Your task to perform on an android device: turn pop-ups off in chrome Image 0: 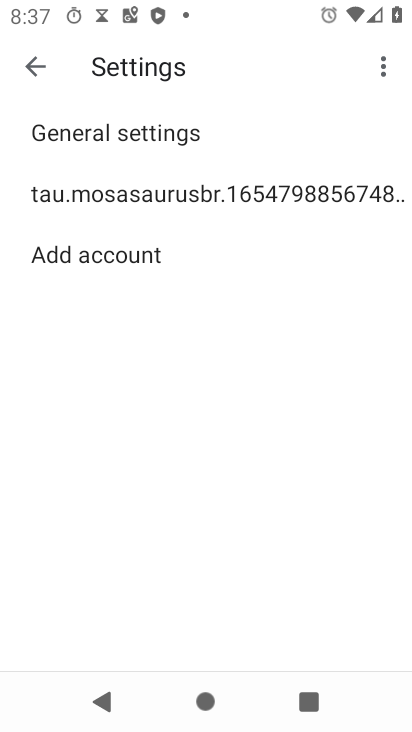
Step 0: press home button
Your task to perform on an android device: turn pop-ups off in chrome Image 1: 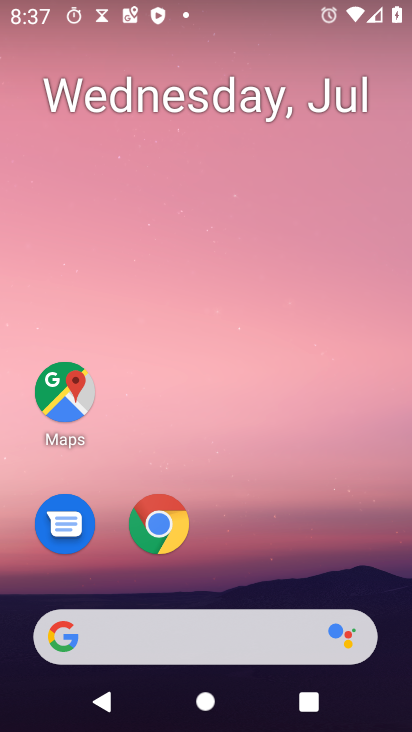
Step 1: click (142, 519)
Your task to perform on an android device: turn pop-ups off in chrome Image 2: 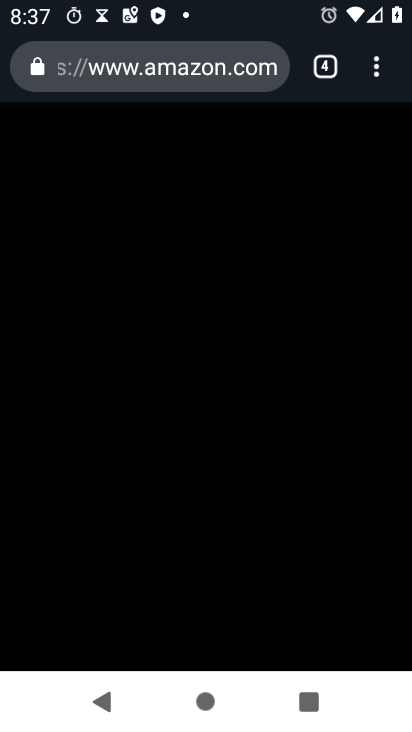
Step 2: press back button
Your task to perform on an android device: turn pop-ups off in chrome Image 3: 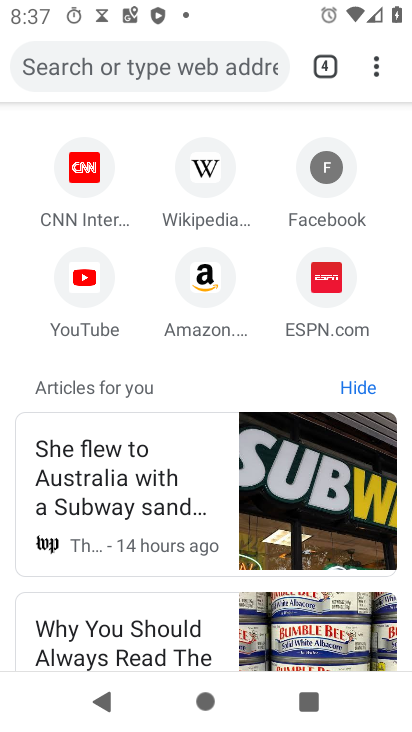
Step 3: click (196, 289)
Your task to perform on an android device: turn pop-ups off in chrome Image 4: 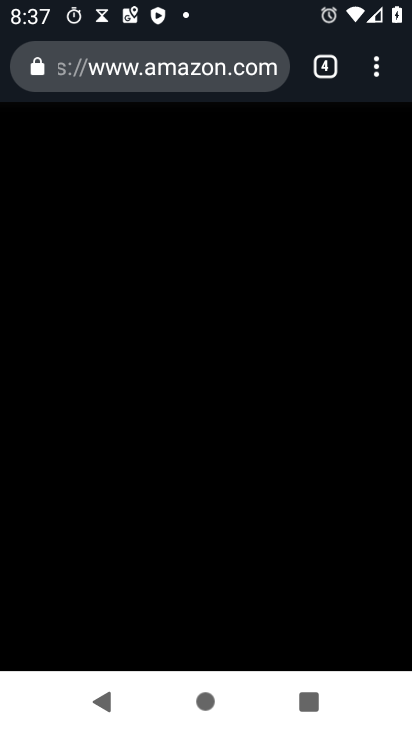
Step 4: drag from (376, 62) to (204, 528)
Your task to perform on an android device: turn pop-ups off in chrome Image 5: 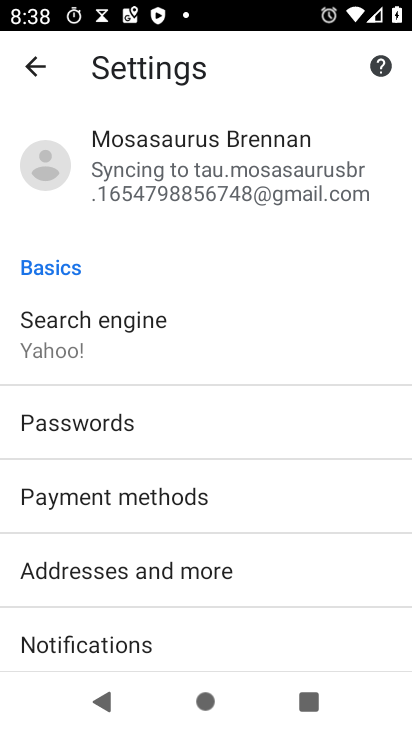
Step 5: drag from (213, 619) to (258, 274)
Your task to perform on an android device: turn pop-ups off in chrome Image 6: 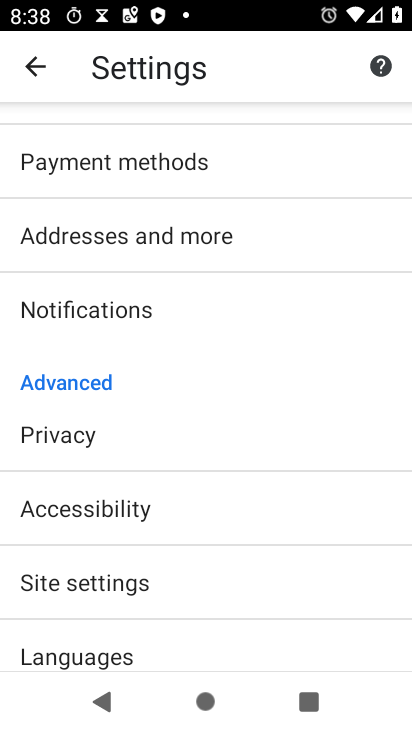
Step 6: click (108, 590)
Your task to perform on an android device: turn pop-ups off in chrome Image 7: 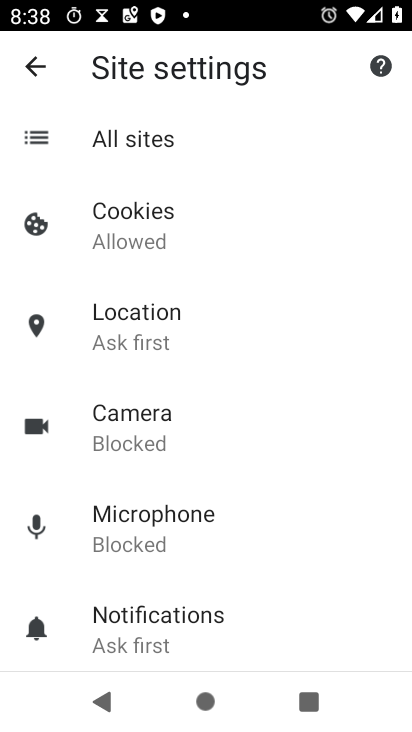
Step 7: drag from (212, 549) to (258, 324)
Your task to perform on an android device: turn pop-ups off in chrome Image 8: 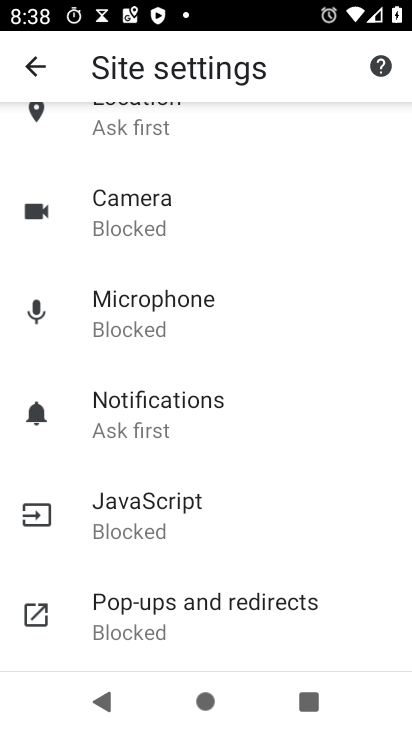
Step 8: click (167, 613)
Your task to perform on an android device: turn pop-ups off in chrome Image 9: 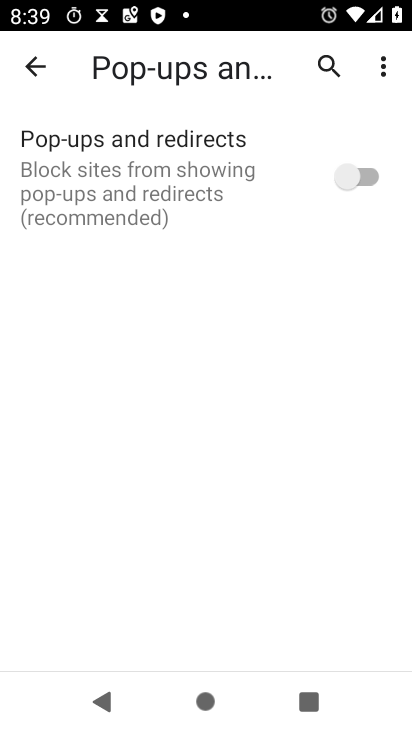
Step 9: task complete